Your task to perform on an android device: Open eBay Image 0: 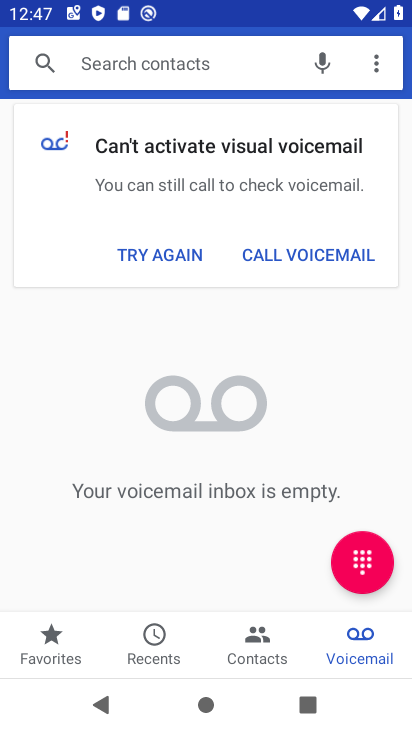
Step 0: press home button
Your task to perform on an android device: Open eBay Image 1: 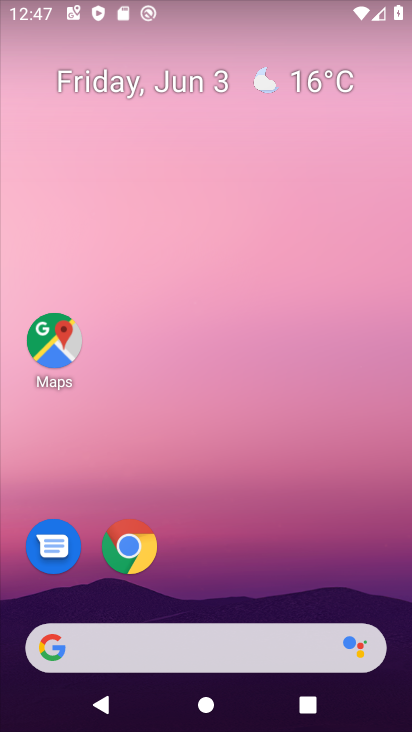
Step 1: click (153, 639)
Your task to perform on an android device: Open eBay Image 2: 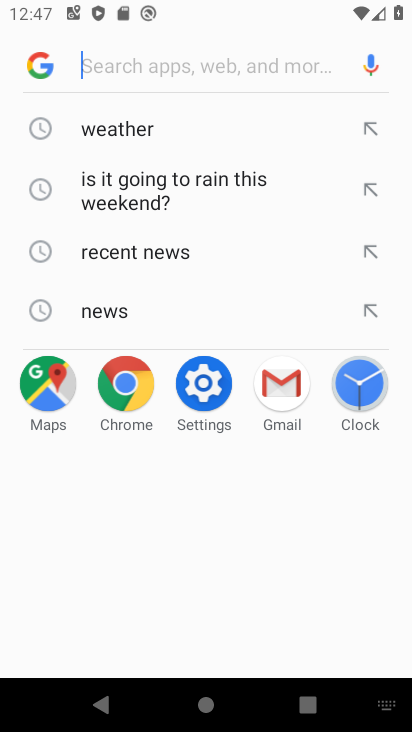
Step 2: type "ebay"
Your task to perform on an android device: Open eBay Image 3: 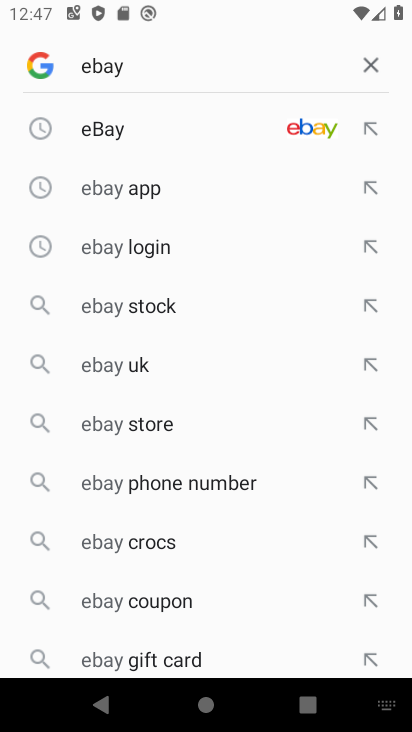
Step 3: click (132, 118)
Your task to perform on an android device: Open eBay Image 4: 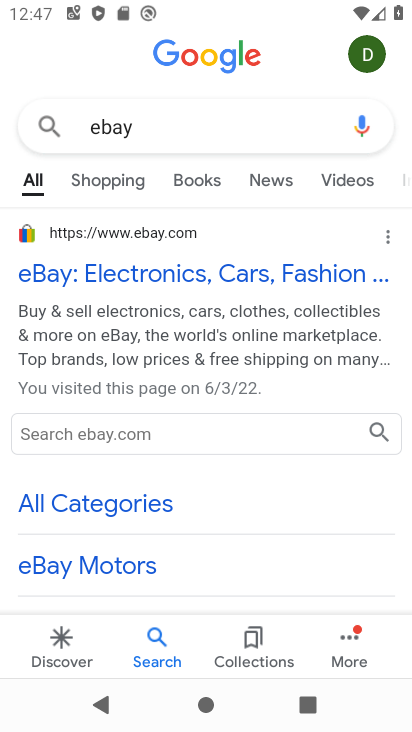
Step 4: task complete